Your task to perform on an android device: open a bookmark in the chrome app Image 0: 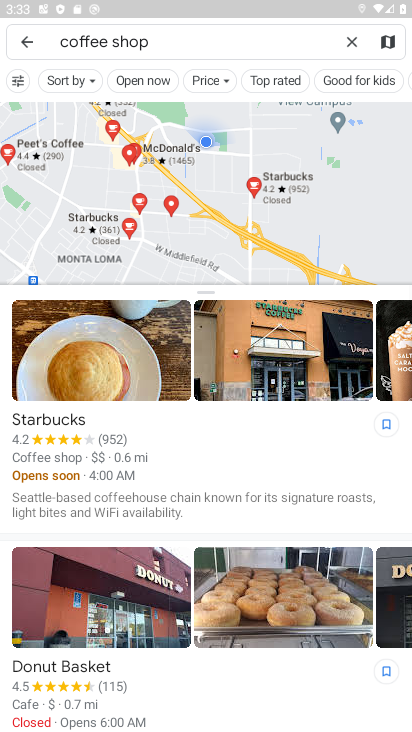
Step 0: press back button
Your task to perform on an android device: open a bookmark in the chrome app Image 1: 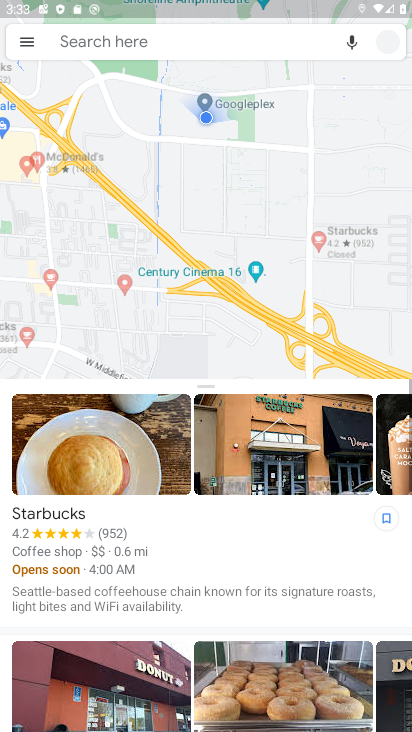
Step 1: press home button
Your task to perform on an android device: open a bookmark in the chrome app Image 2: 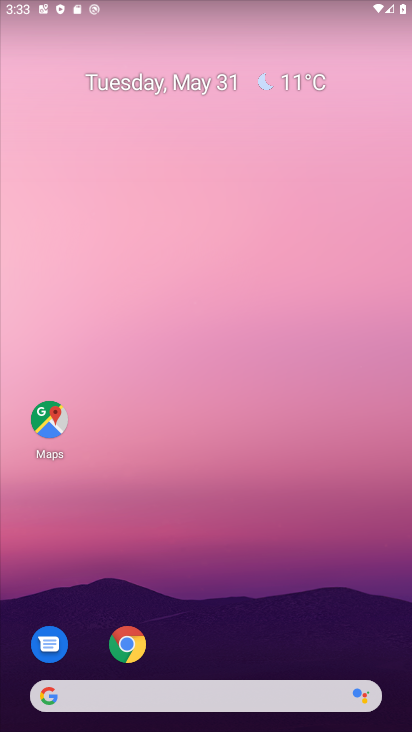
Step 2: click (135, 651)
Your task to perform on an android device: open a bookmark in the chrome app Image 3: 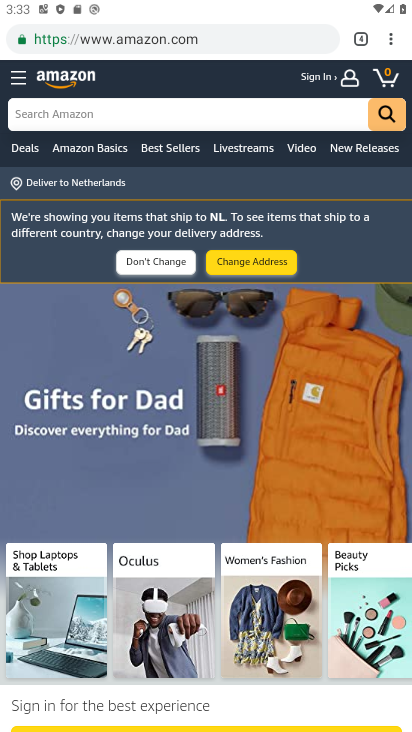
Step 3: click (379, 35)
Your task to perform on an android device: open a bookmark in the chrome app Image 4: 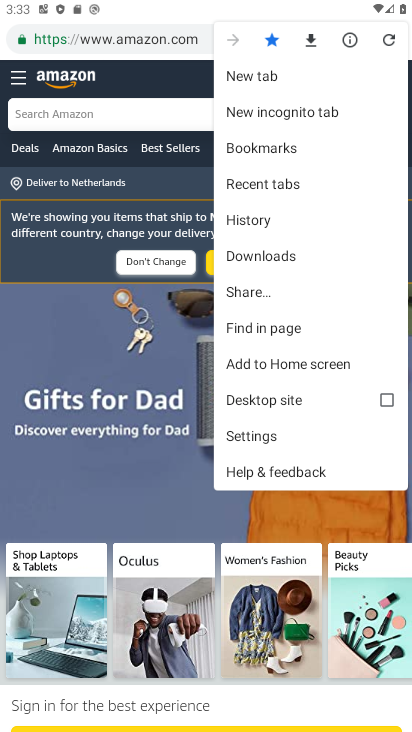
Step 4: click (276, 153)
Your task to perform on an android device: open a bookmark in the chrome app Image 5: 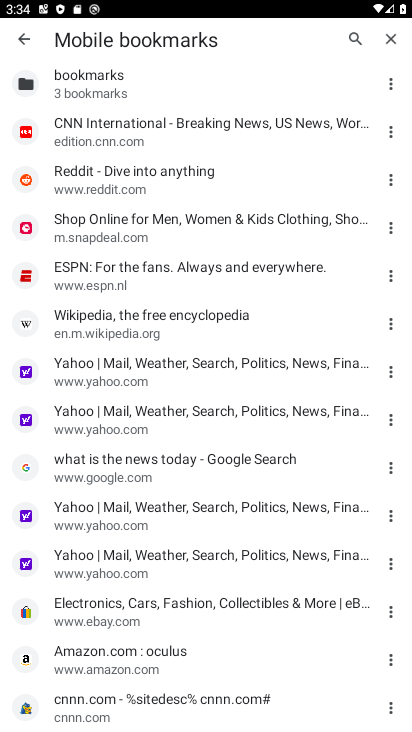
Step 5: task complete